Your task to perform on an android device: toggle pop-ups in chrome Image 0: 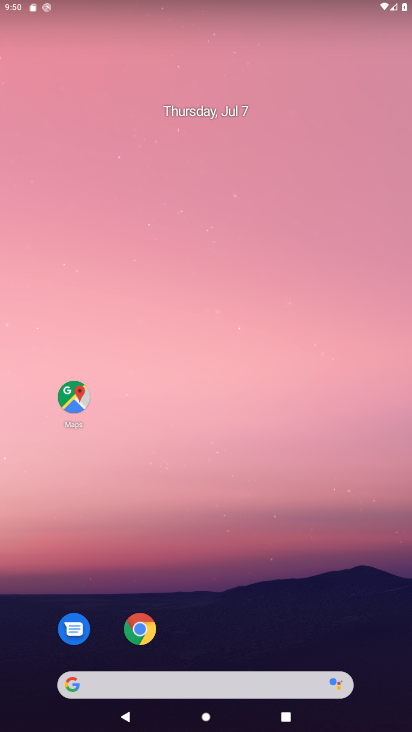
Step 0: click (135, 633)
Your task to perform on an android device: toggle pop-ups in chrome Image 1: 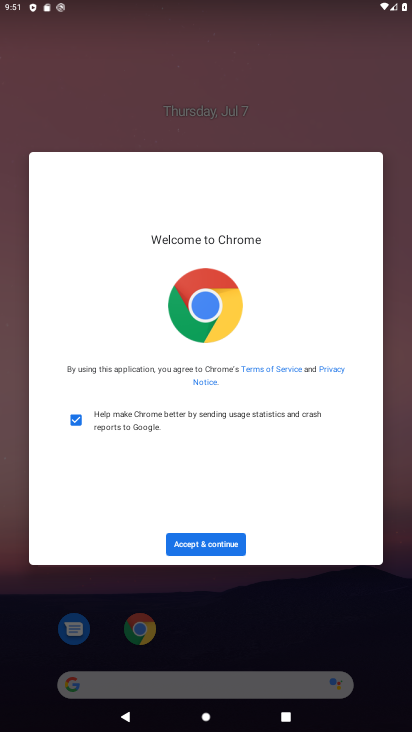
Step 1: click (194, 544)
Your task to perform on an android device: toggle pop-ups in chrome Image 2: 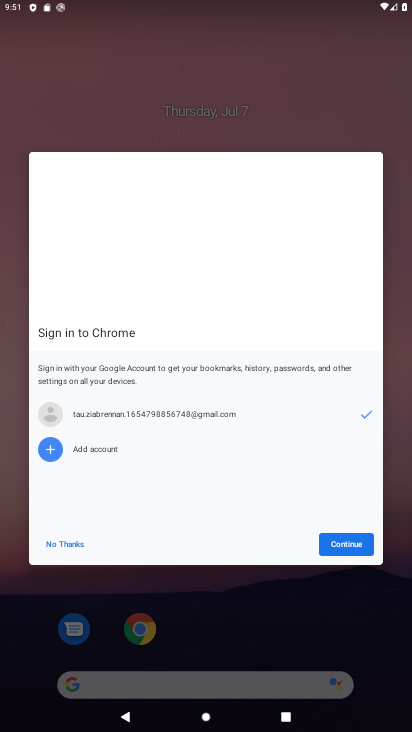
Step 2: click (337, 548)
Your task to perform on an android device: toggle pop-ups in chrome Image 3: 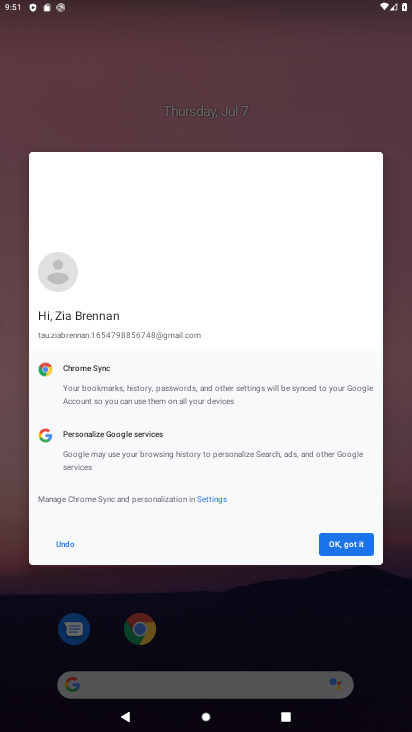
Step 3: click (337, 548)
Your task to perform on an android device: toggle pop-ups in chrome Image 4: 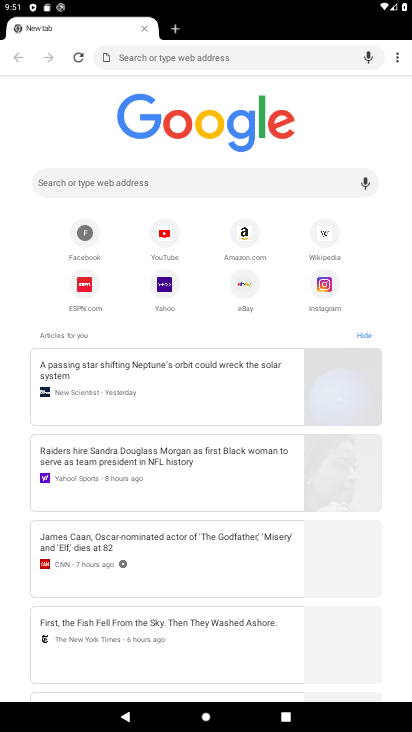
Step 4: click (397, 61)
Your task to perform on an android device: toggle pop-ups in chrome Image 5: 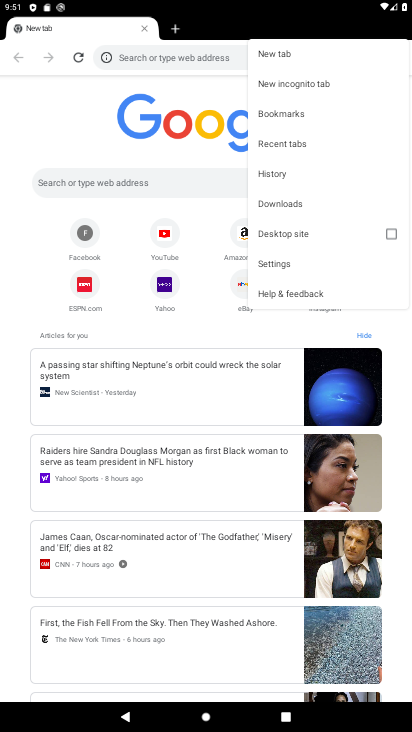
Step 5: click (278, 257)
Your task to perform on an android device: toggle pop-ups in chrome Image 6: 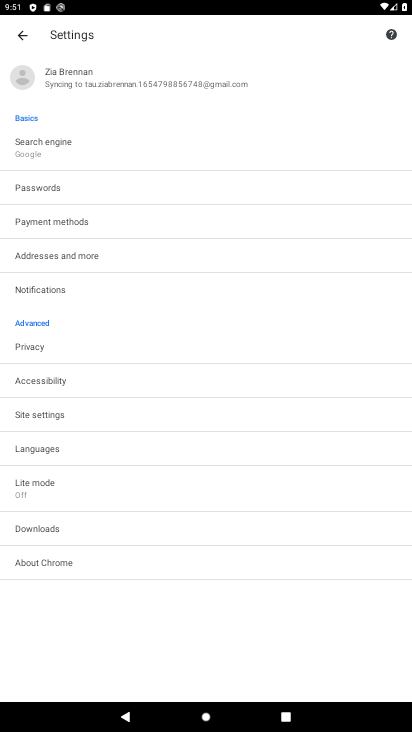
Step 6: click (51, 412)
Your task to perform on an android device: toggle pop-ups in chrome Image 7: 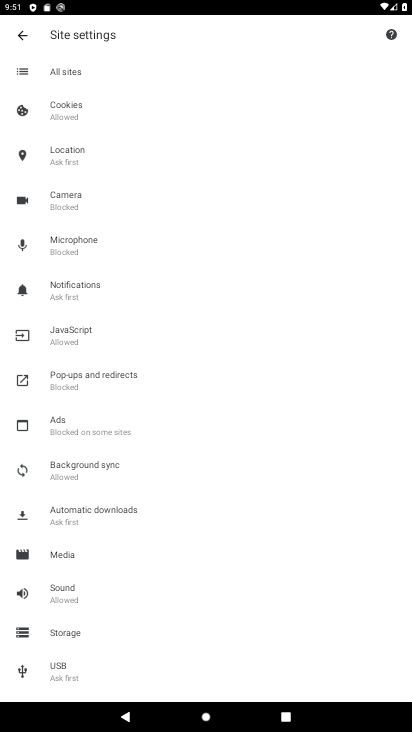
Step 7: click (82, 381)
Your task to perform on an android device: toggle pop-ups in chrome Image 8: 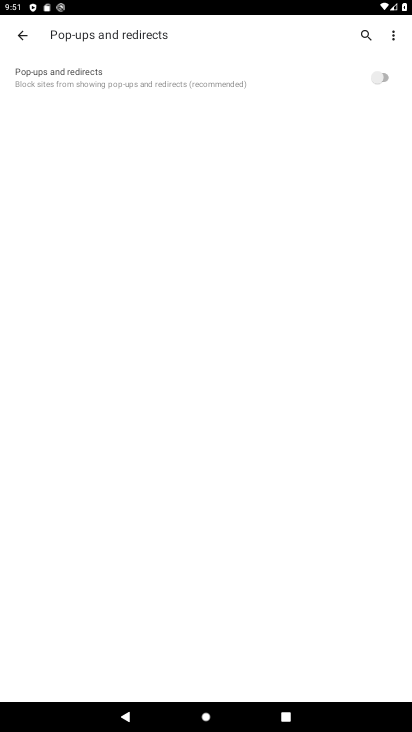
Step 8: click (386, 75)
Your task to perform on an android device: toggle pop-ups in chrome Image 9: 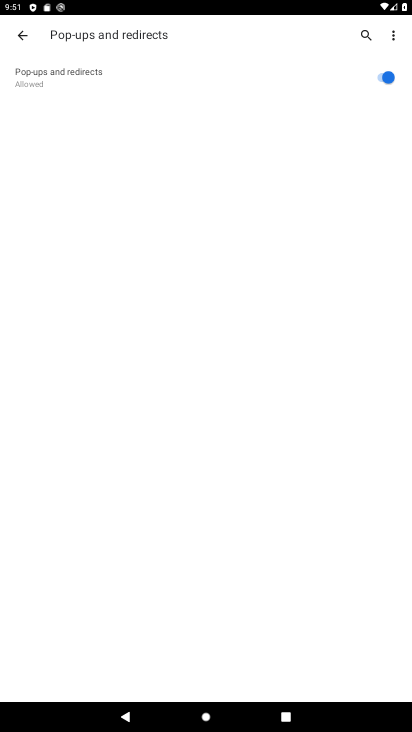
Step 9: task complete